Your task to perform on an android device: open sync settings in chrome Image 0: 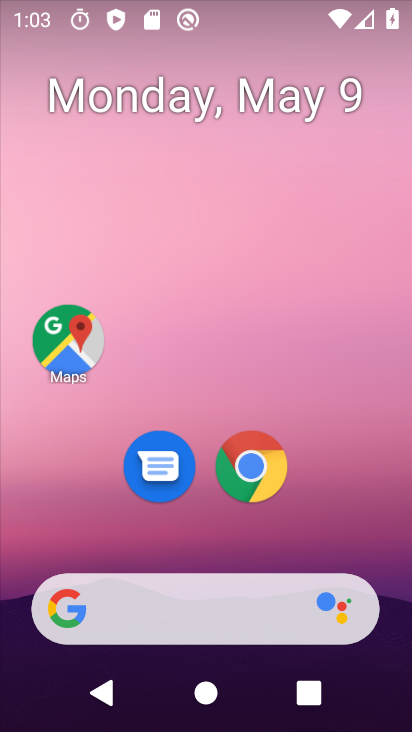
Step 0: drag from (268, 535) to (259, 106)
Your task to perform on an android device: open sync settings in chrome Image 1: 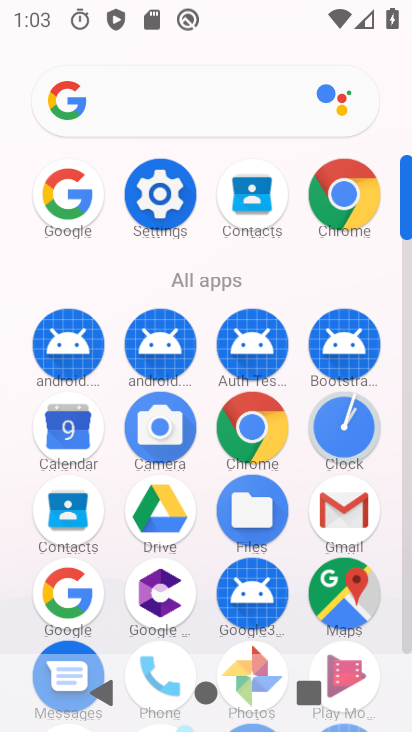
Step 1: click (333, 202)
Your task to perform on an android device: open sync settings in chrome Image 2: 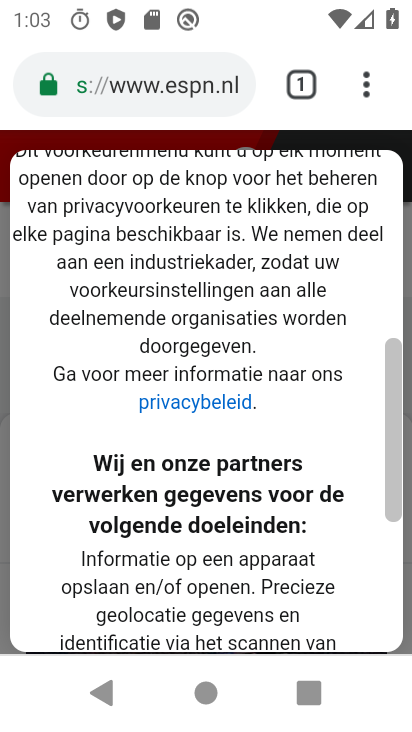
Step 2: click (366, 86)
Your task to perform on an android device: open sync settings in chrome Image 3: 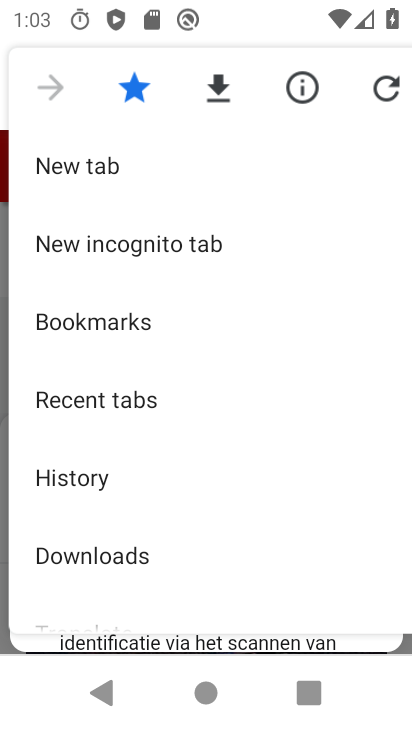
Step 3: drag from (184, 519) to (181, 154)
Your task to perform on an android device: open sync settings in chrome Image 4: 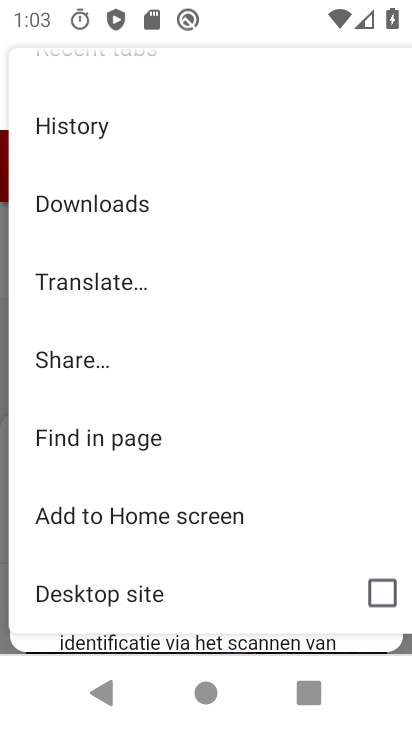
Step 4: drag from (140, 478) to (201, 55)
Your task to perform on an android device: open sync settings in chrome Image 5: 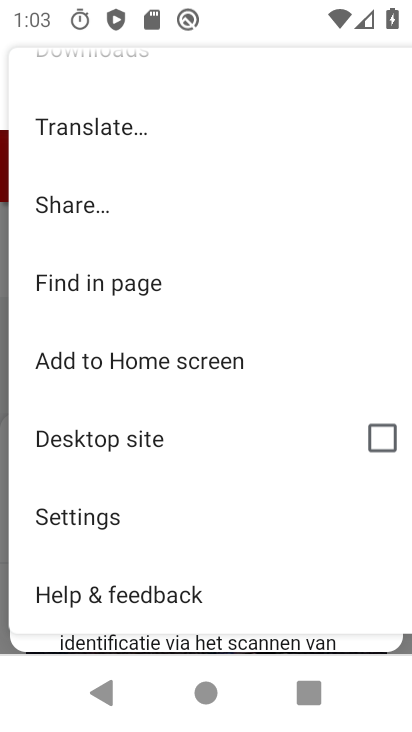
Step 5: click (120, 510)
Your task to perform on an android device: open sync settings in chrome Image 6: 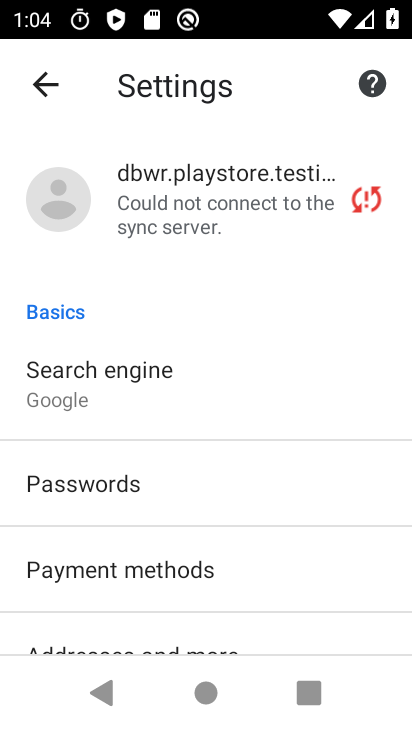
Step 6: click (190, 197)
Your task to perform on an android device: open sync settings in chrome Image 7: 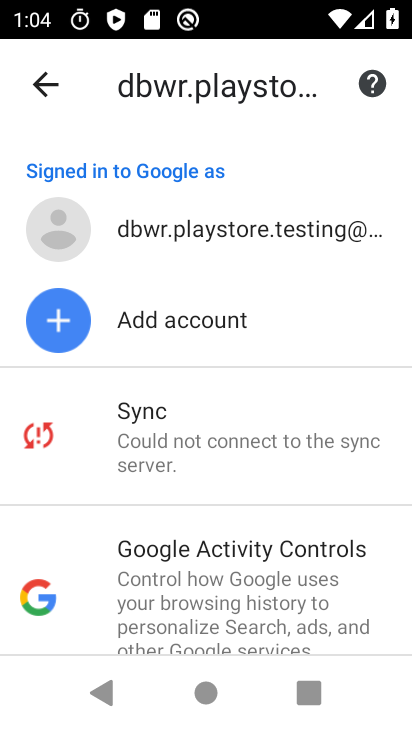
Step 7: click (208, 442)
Your task to perform on an android device: open sync settings in chrome Image 8: 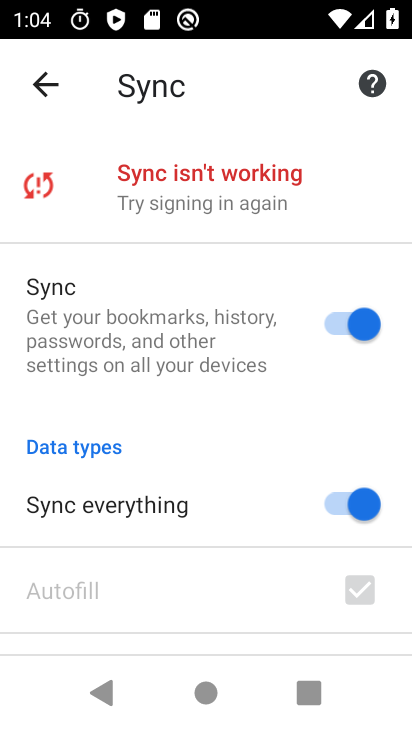
Step 8: task complete